Your task to perform on an android device: Empty the shopping cart on target. Add bose soundlink mini to the cart on target Image 0: 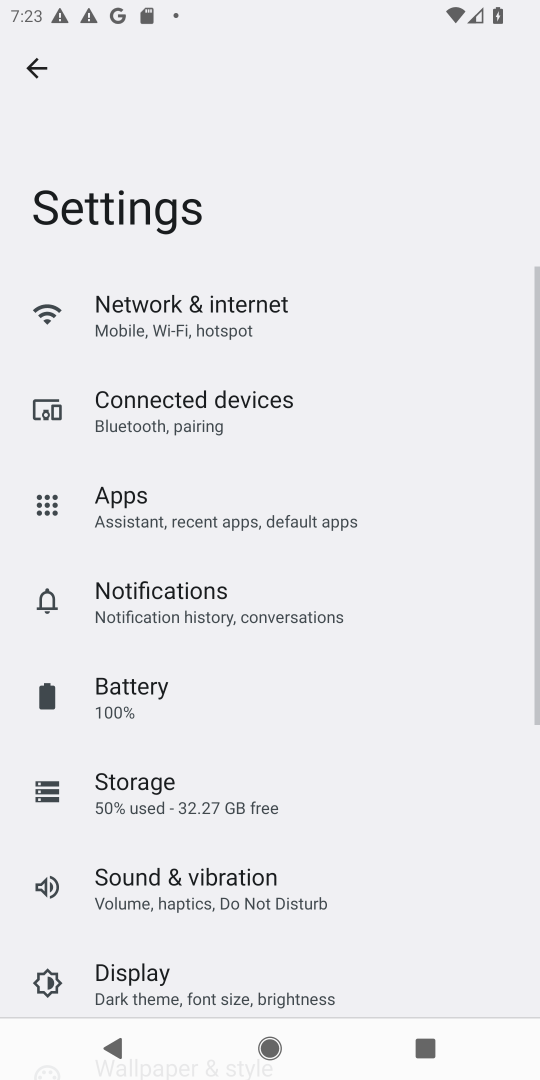
Step 0: press home button
Your task to perform on an android device: Empty the shopping cart on target. Add bose soundlink mini to the cart on target Image 1: 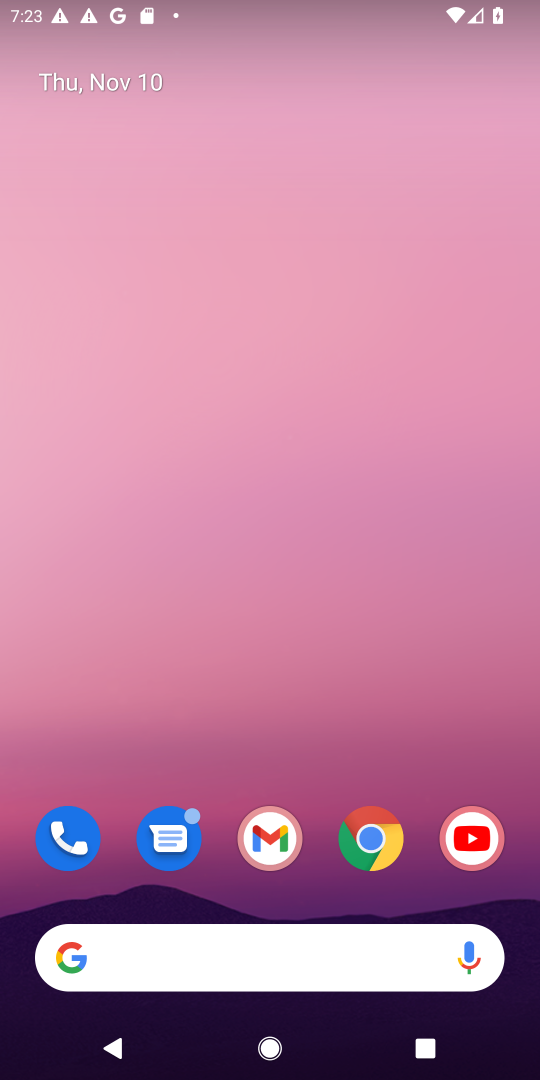
Step 1: drag from (311, 716) to (335, 74)
Your task to perform on an android device: Empty the shopping cart on target. Add bose soundlink mini to the cart on target Image 2: 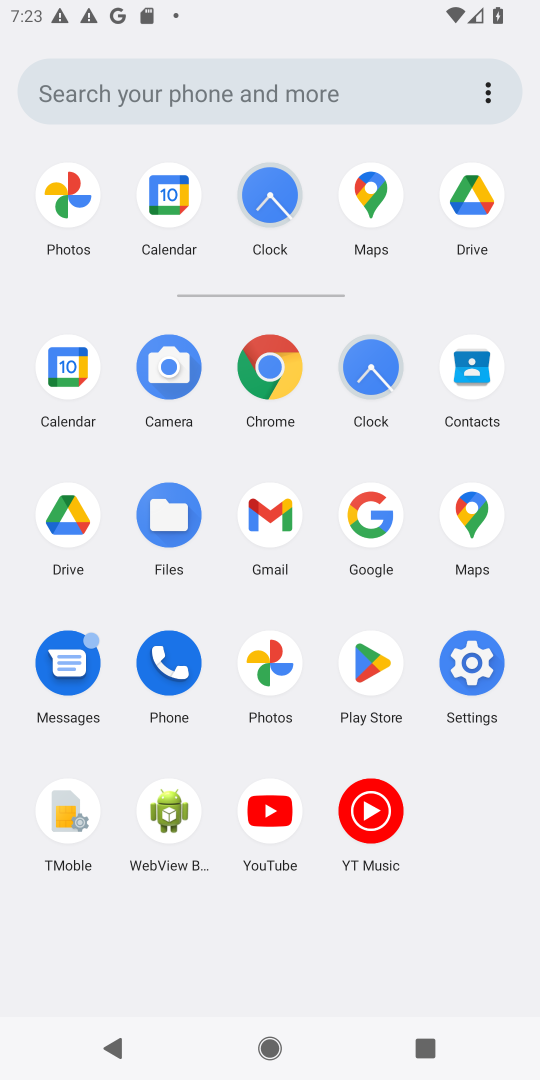
Step 2: click (274, 381)
Your task to perform on an android device: Empty the shopping cart on target. Add bose soundlink mini to the cart on target Image 3: 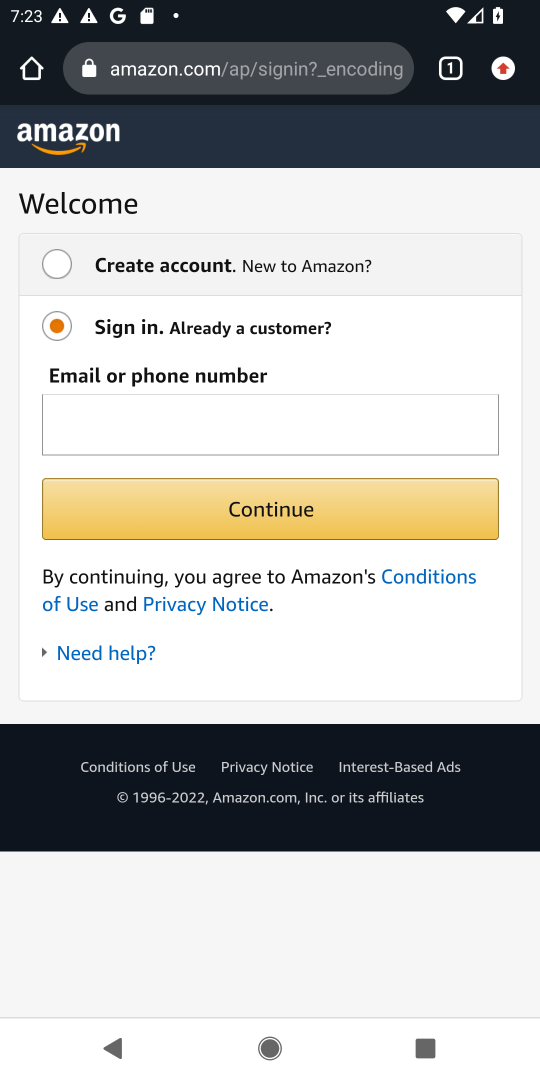
Step 3: click (276, 77)
Your task to perform on an android device: Empty the shopping cart on target. Add bose soundlink mini to the cart on target Image 4: 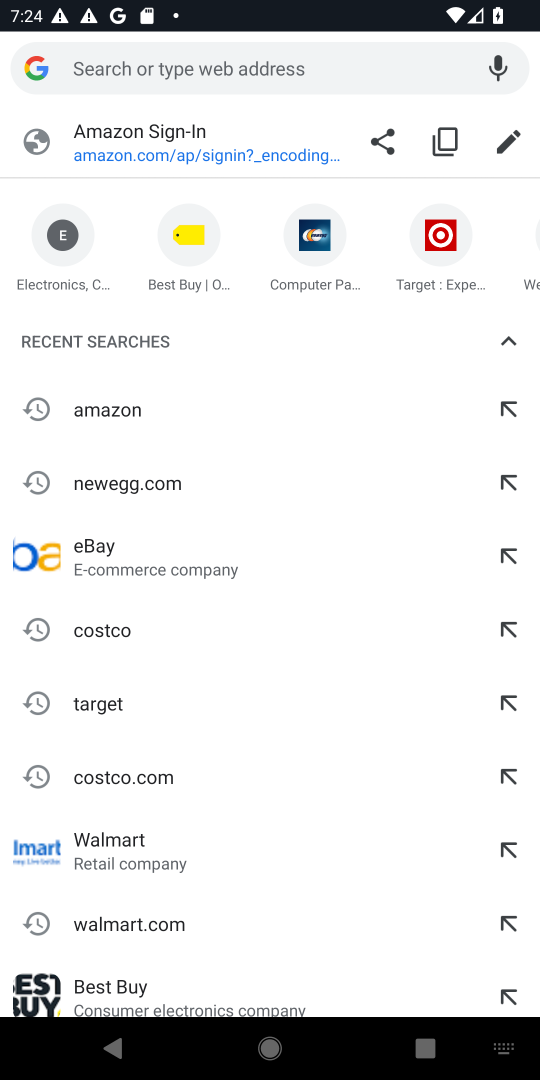
Step 4: type "target.com"
Your task to perform on an android device: Empty the shopping cart on target. Add bose soundlink mini to the cart on target Image 5: 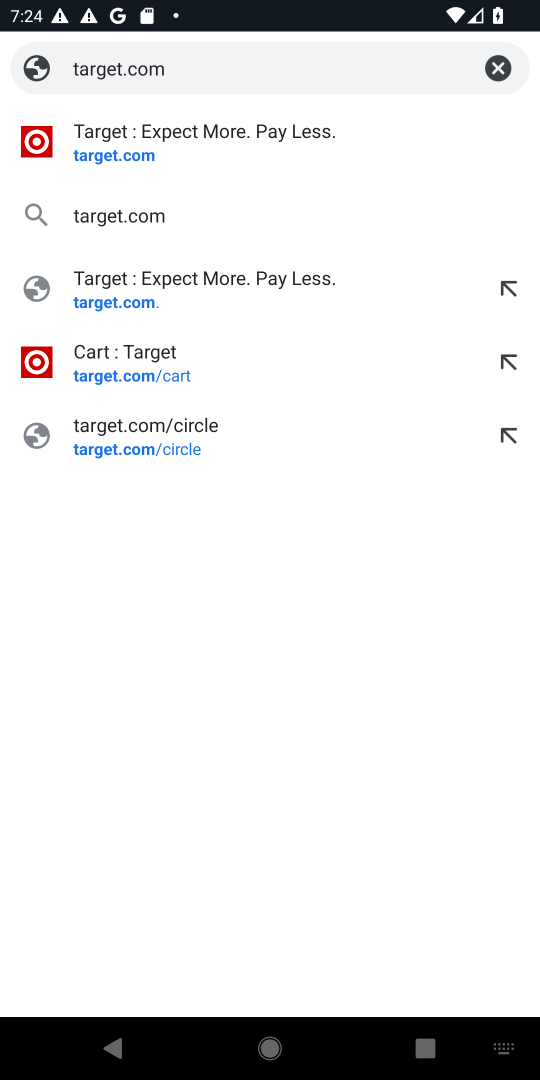
Step 5: press enter
Your task to perform on an android device: Empty the shopping cart on target. Add bose soundlink mini to the cart on target Image 6: 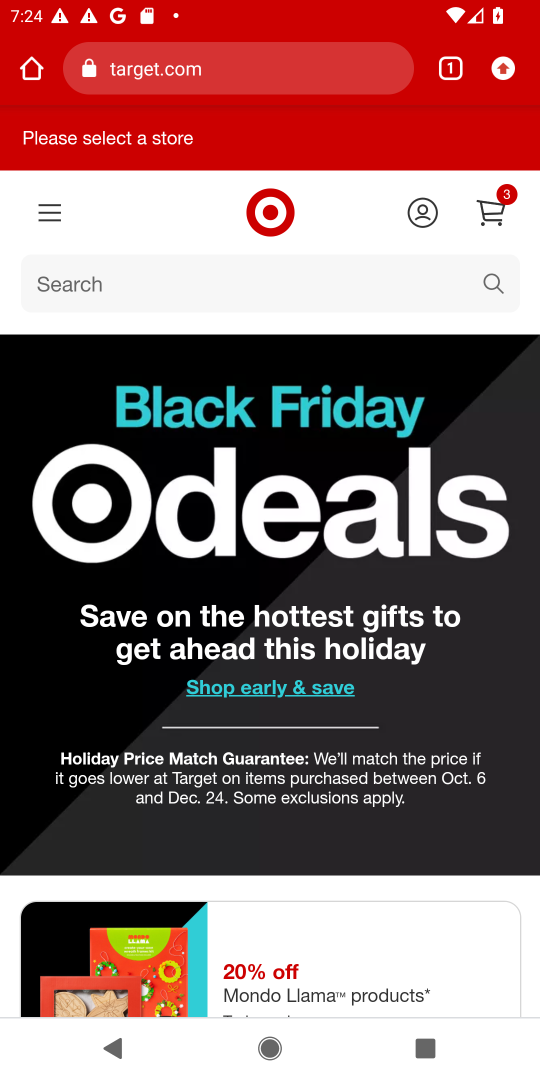
Step 6: click (499, 216)
Your task to perform on an android device: Empty the shopping cart on target. Add bose soundlink mini to the cart on target Image 7: 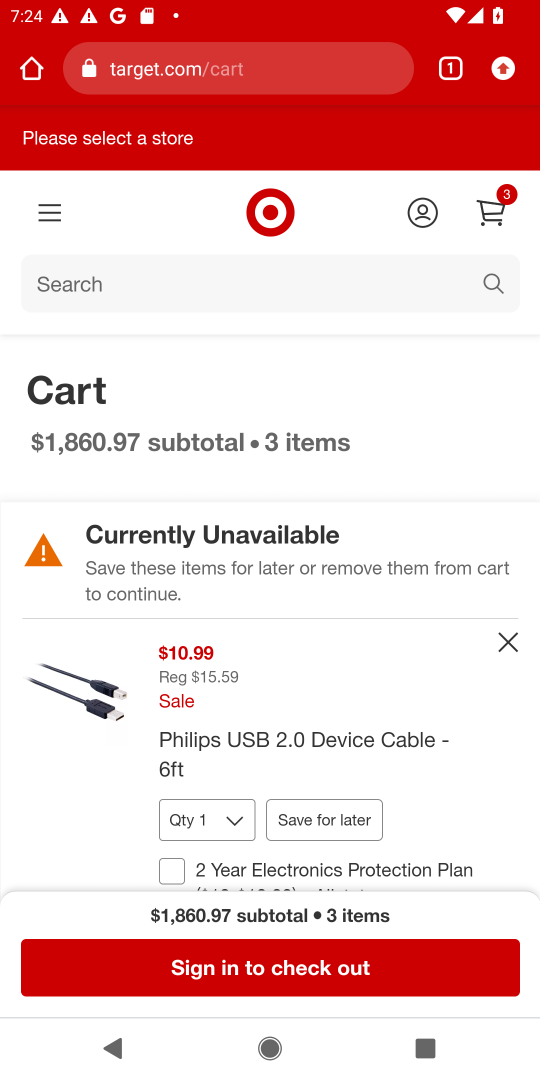
Step 7: drag from (271, 749) to (257, 243)
Your task to perform on an android device: Empty the shopping cart on target. Add bose soundlink mini to the cart on target Image 8: 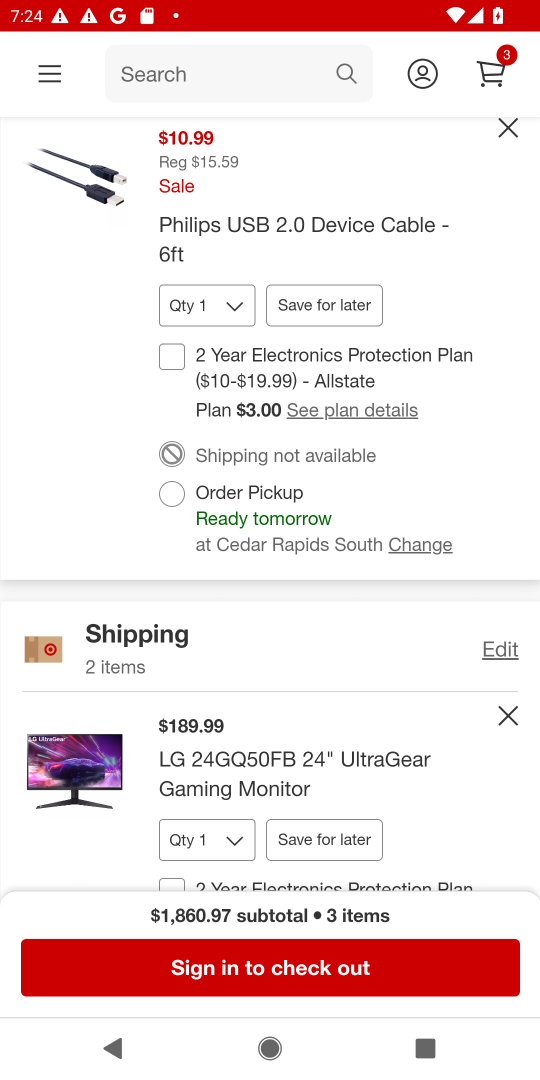
Step 8: click (498, 131)
Your task to perform on an android device: Empty the shopping cart on target. Add bose soundlink mini to the cart on target Image 9: 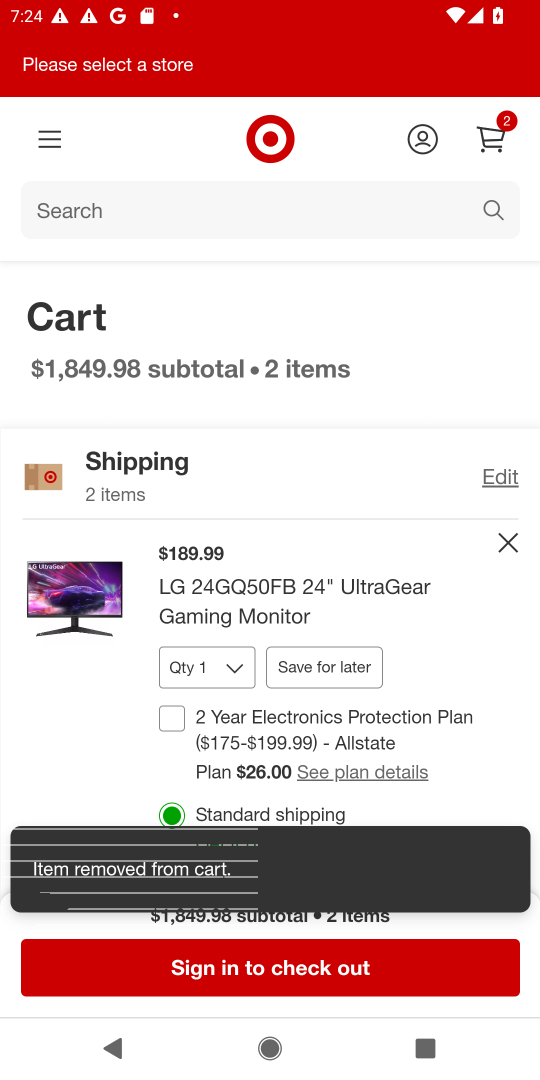
Step 9: click (516, 547)
Your task to perform on an android device: Empty the shopping cart on target. Add bose soundlink mini to the cart on target Image 10: 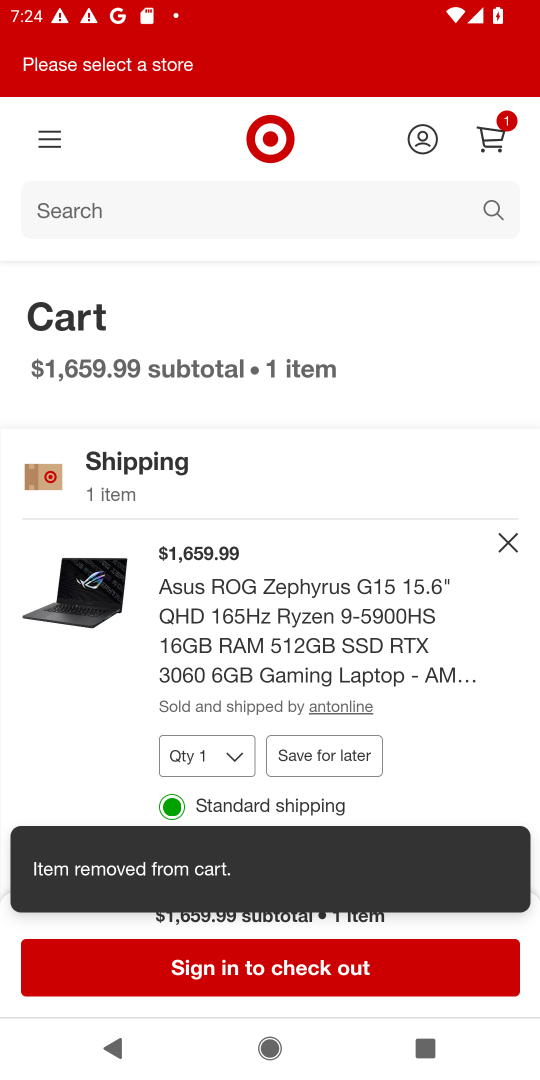
Step 10: click (501, 546)
Your task to perform on an android device: Empty the shopping cart on target. Add bose soundlink mini to the cart on target Image 11: 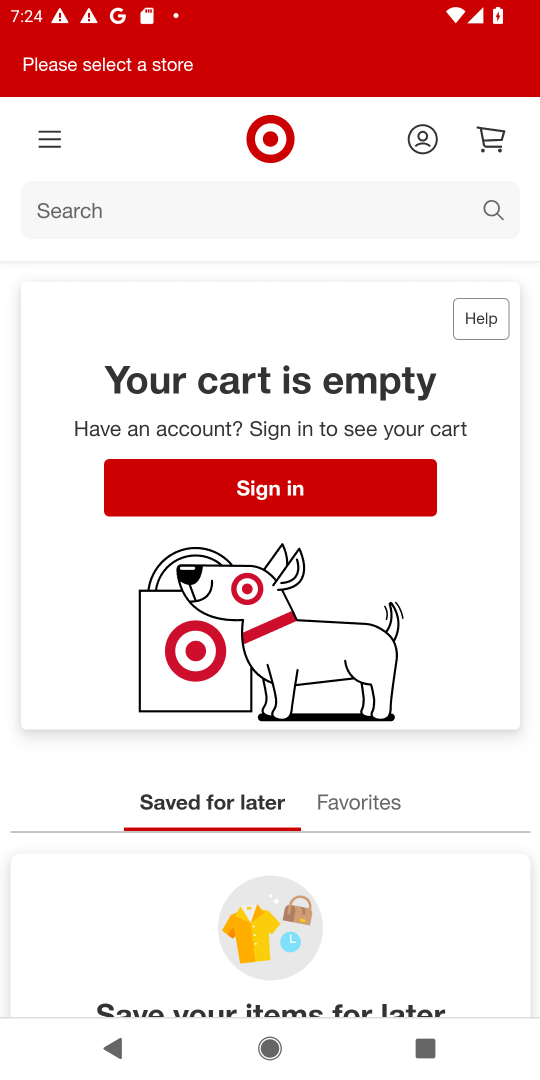
Step 11: click (350, 215)
Your task to perform on an android device: Empty the shopping cart on target. Add bose soundlink mini to the cart on target Image 12: 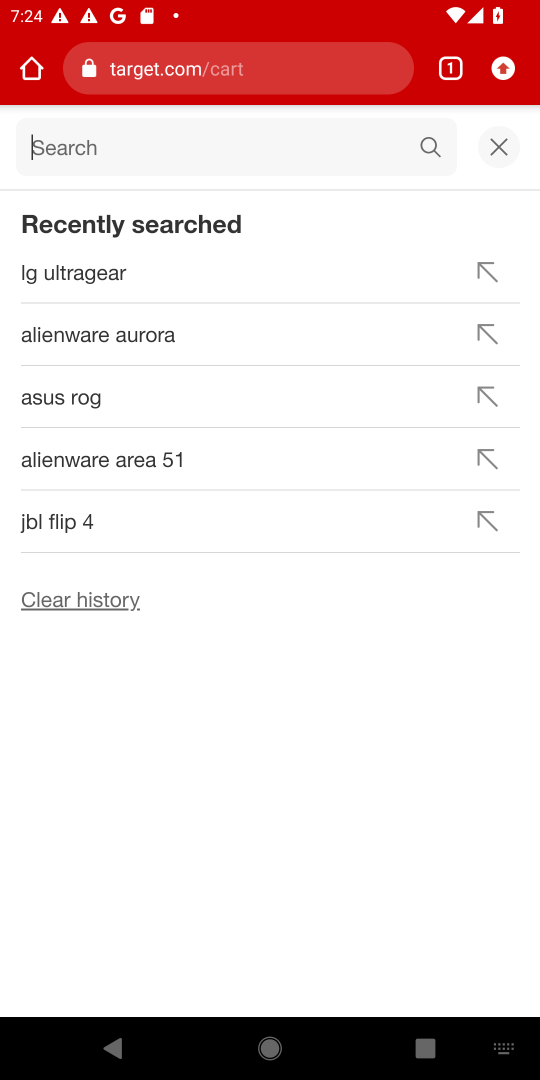
Step 12: type "bose soundlink mini"
Your task to perform on an android device: Empty the shopping cart on target. Add bose soundlink mini to the cart on target Image 13: 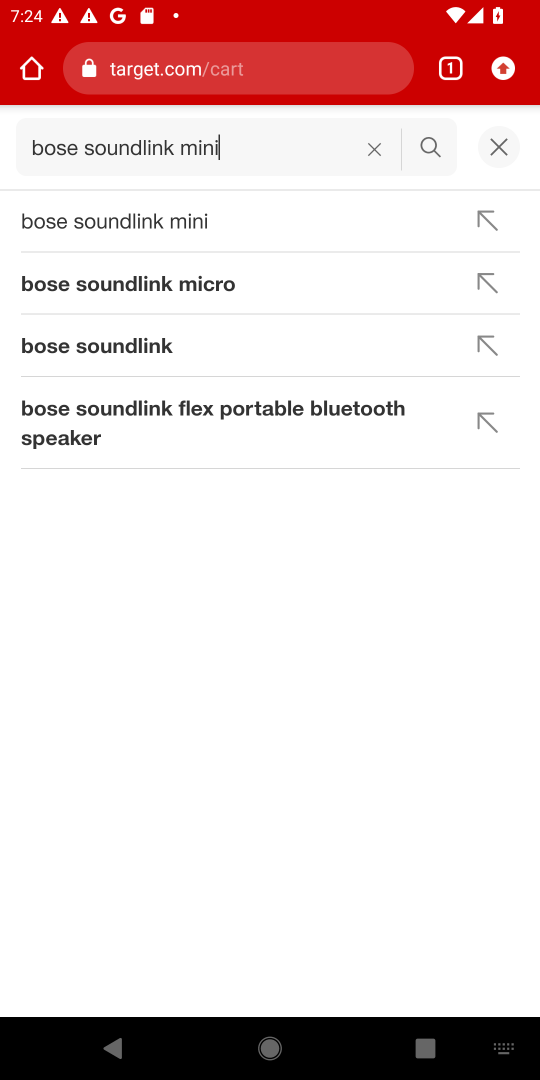
Step 13: press enter
Your task to perform on an android device: Empty the shopping cart on target. Add bose soundlink mini to the cart on target Image 14: 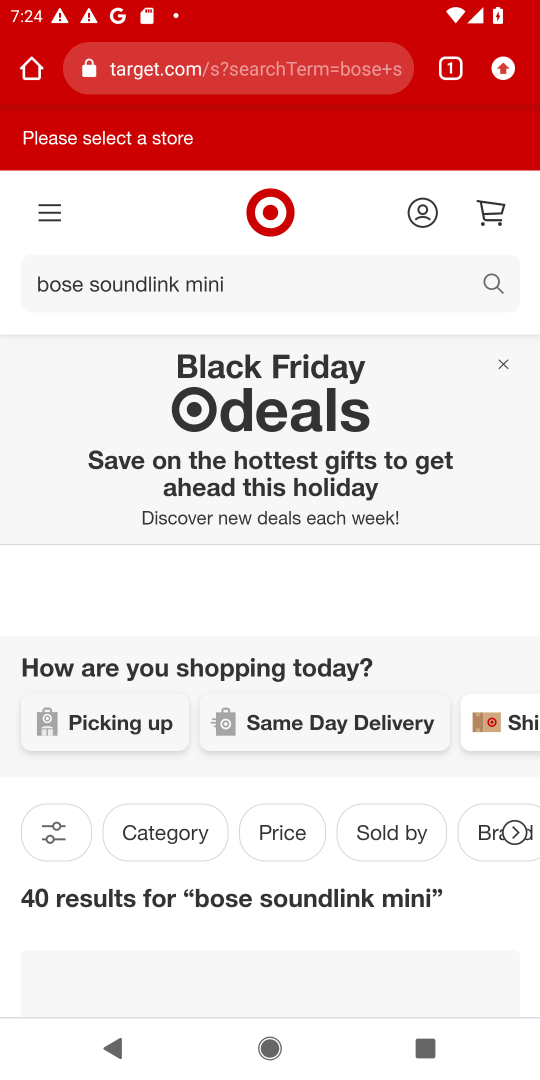
Step 14: drag from (334, 838) to (299, 139)
Your task to perform on an android device: Empty the shopping cart on target. Add bose soundlink mini to the cart on target Image 15: 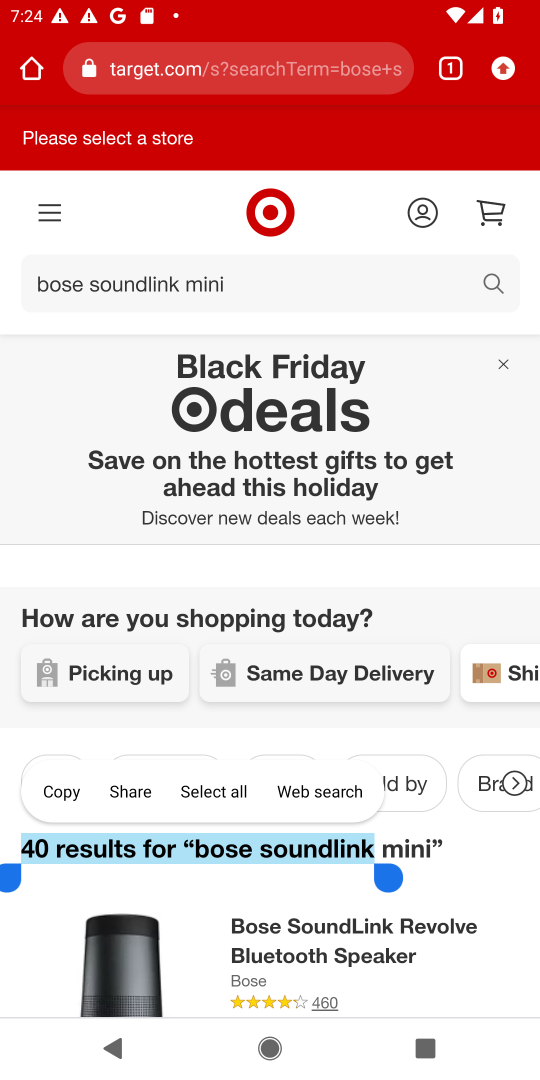
Step 15: click (454, 872)
Your task to perform on an android device: Empty the shopping cart on target. Add bose soundlink mini to the cart on target Image 16: 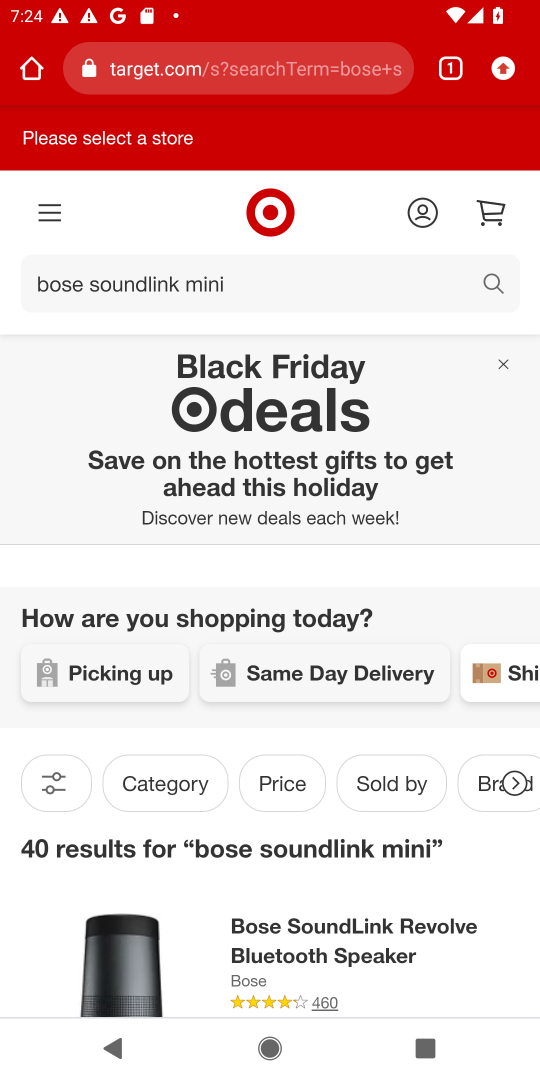
Step 16: task complete